Your task to perform on an android device: Set the phone to "Do not disturb". Image 0: 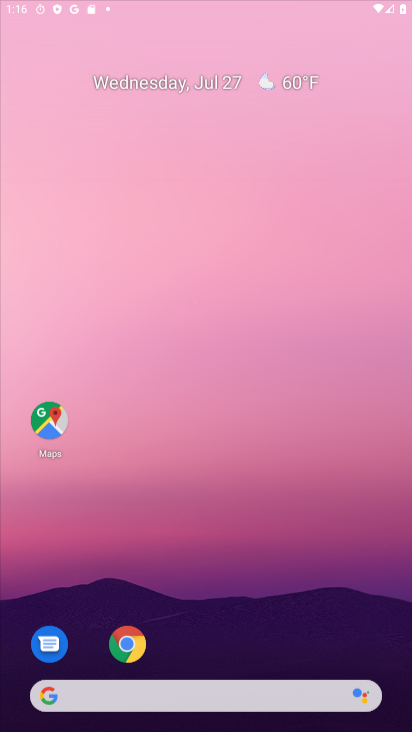
Step 0: click (238, 194)
Your task to perform on an android device: Set the phone to "Do not disturb". Image 1: 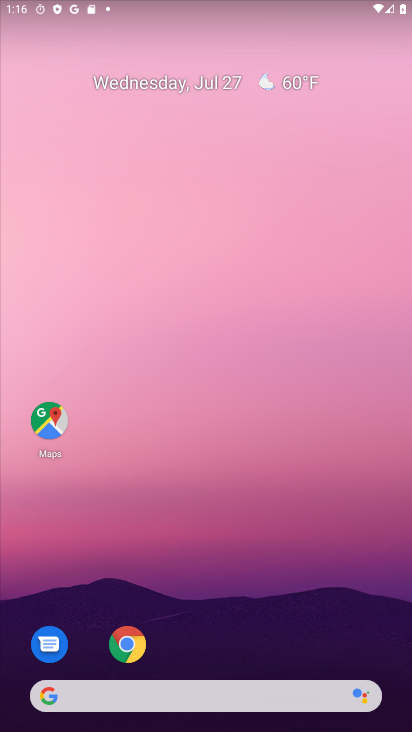
Step 1: drag from (189, 630) to (225, 97)
Your task to perform on an android device: Set the phone to "Do not disturb". Image 2: 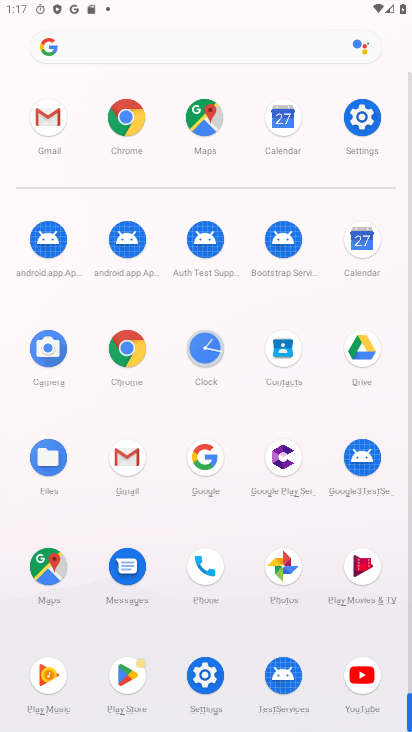
Step 2: click (207, 674)
Your task to perform on an android device: Set the phone to "Do not disturb". Image 3: 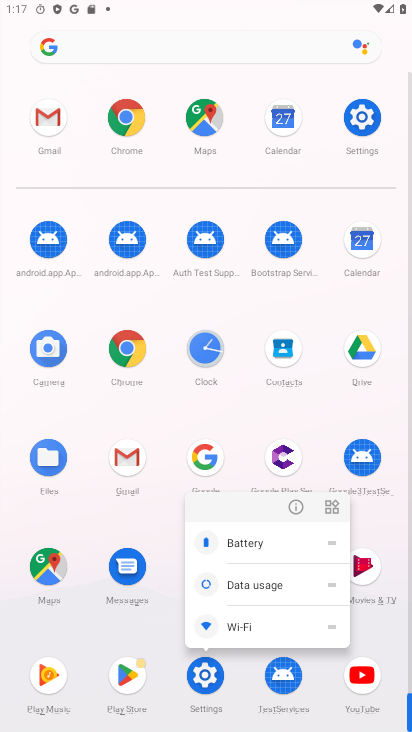
Step 3: click (293, 505)
Your task to perform on an android device: Set the phone to "Do not disturb". Image 4: 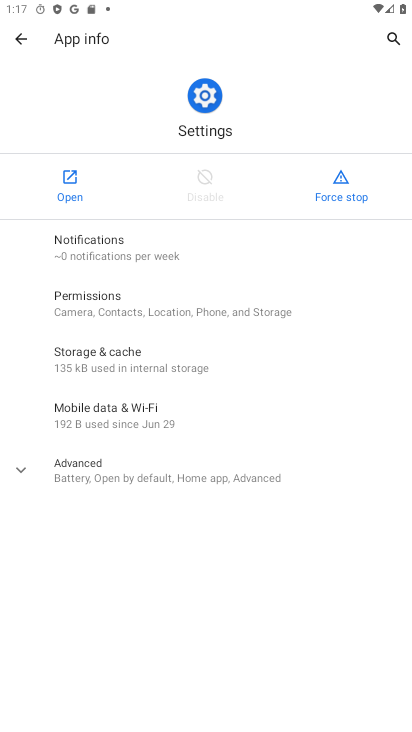
Step 4: click (98, 176)
Your task to perform on an android device: Set the phone to "Do not disturb". Image 5: 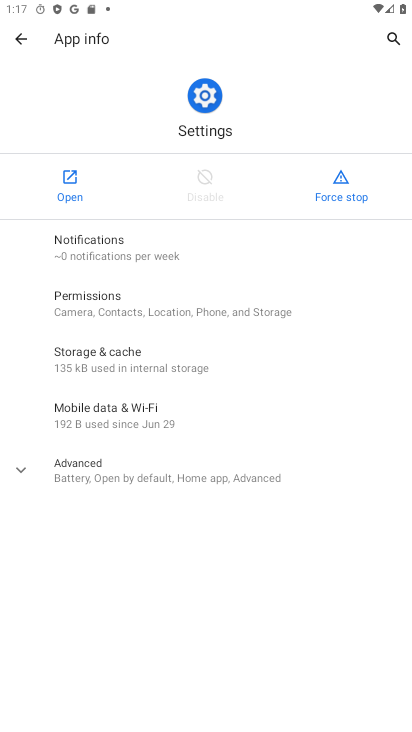
Step 5: click (84, 176)
Your task to perform on an android device: Set the phone to "Do not disturb". Image 6: 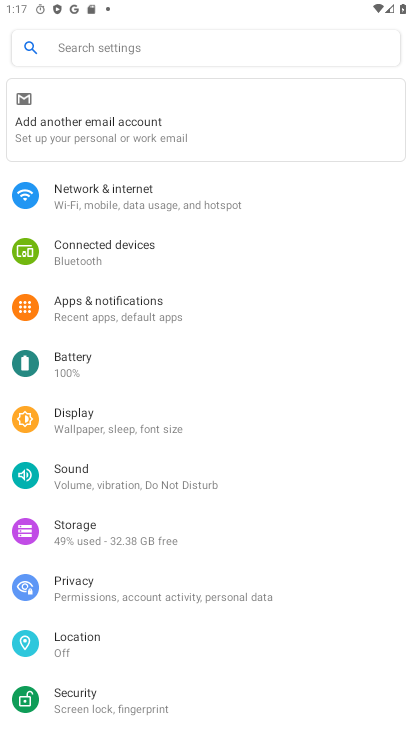
Step 6: drag from (212, 518) to (225, 200)
Your task to perform on an android device: Set the phone to "Do not disturb". Image 7: 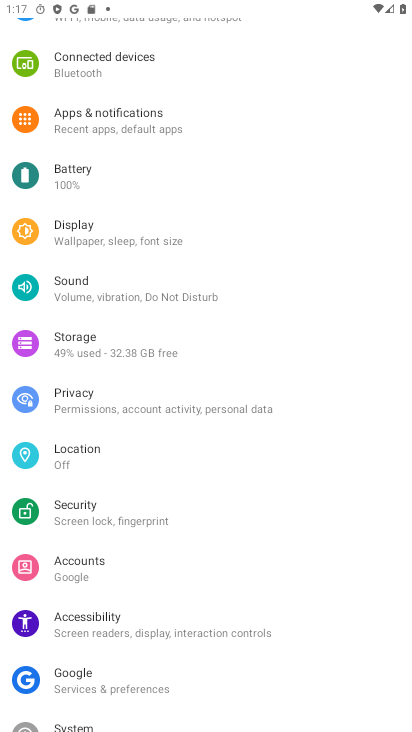
Step 7: drag from (225, 196) to (271, 730)
Your task to perform on an android device: Set the phone to "Do not disturb". Image 8: 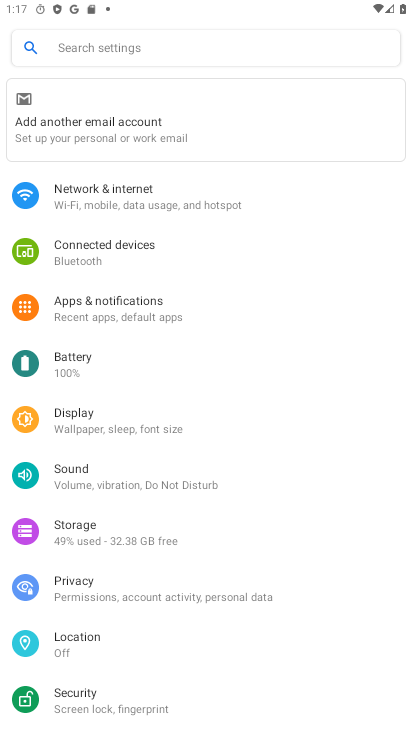
Step 8: click (165, 315)
Your task to perform on an android device: Set the phone to "Do not disturb". Image 9: 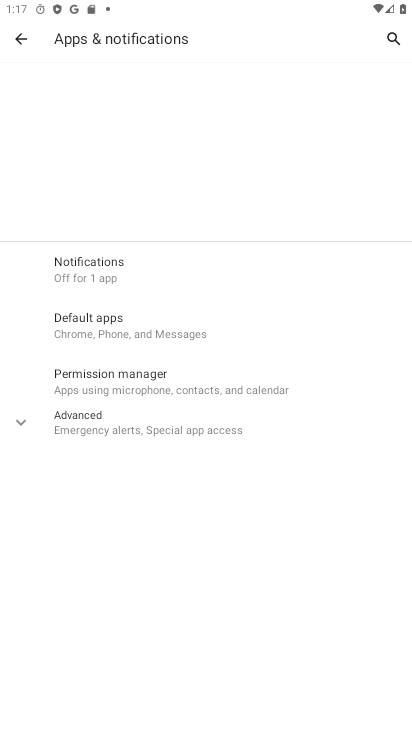
Step 9: drag from (213, 572) to (219, 184)
Your task to perform on an android device: Set the phone to "Do not disturb". Image 10: 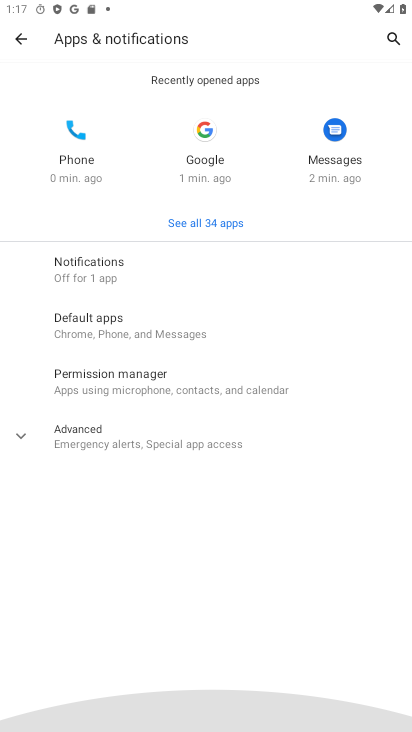
Step 10: drag from (237, 139) to (189, 723)
Your task to perform on an android device: Set the phone to "Do not disturb". Image 11: 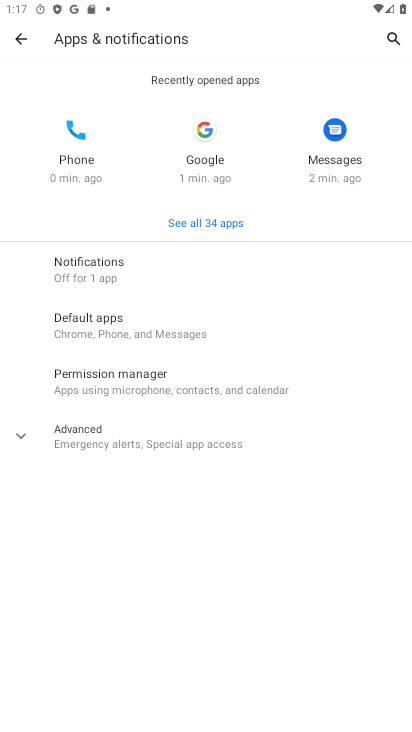
Step 11: click (174, 263)
Your task to perform on an android device: Set the phone to "Do not disturb". Image 12: 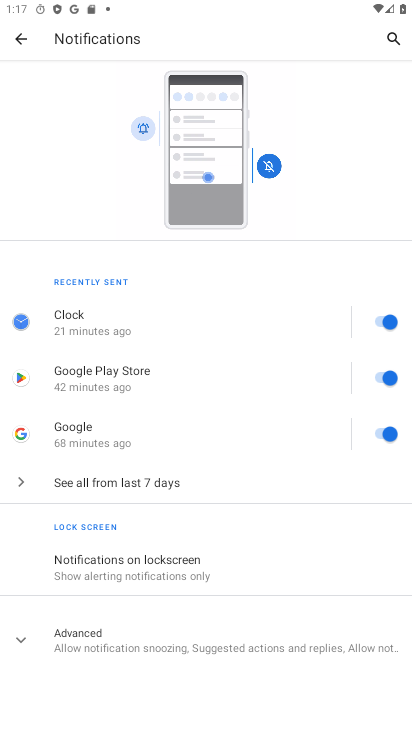
Step 12: drag from (240, 499) to (252, 213)
Your task to perform on an android device: Set the phone to "Do not disturb". Image 13: 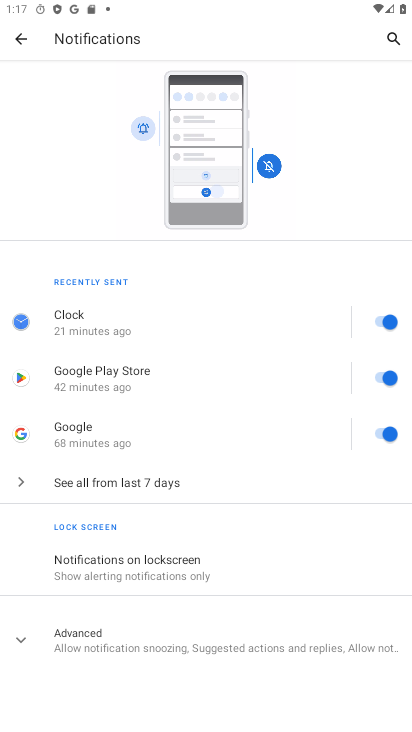
Step 13: drag from (183, 591) to (232, 312)
Your task to perform on an android device: Set the phone to "Do not disturb". Image 14: 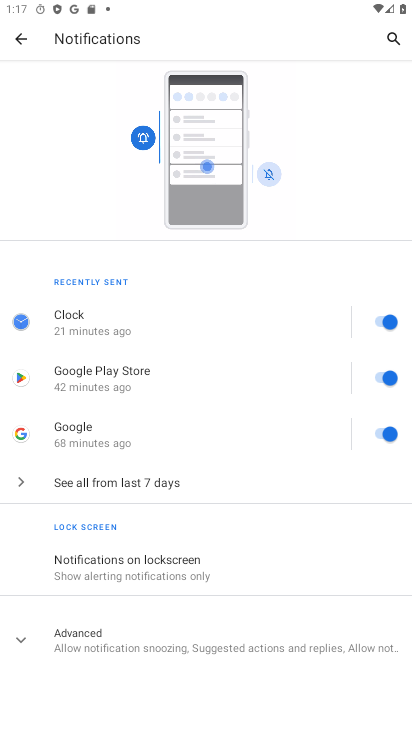
Step 14: drag from (212, 95) to (183, 511)
Your task to perform on an android device: Set the phone to "Do not disturb". Image 15: 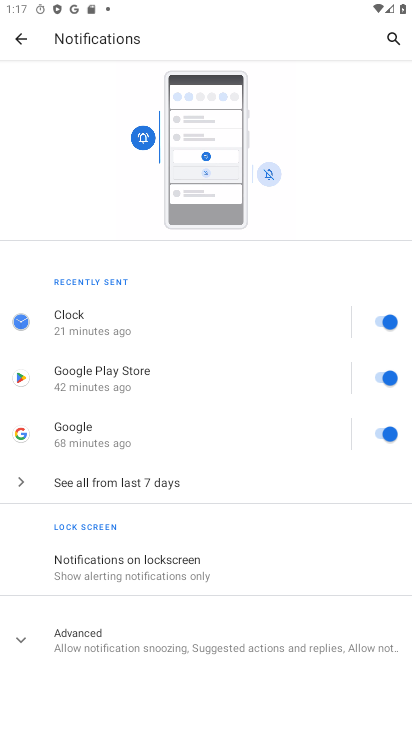
Step 15: drag from (246, 654) to (255, 211)
Your task to perform on an android device: Set the phone to "Do not disturb". Image 16: 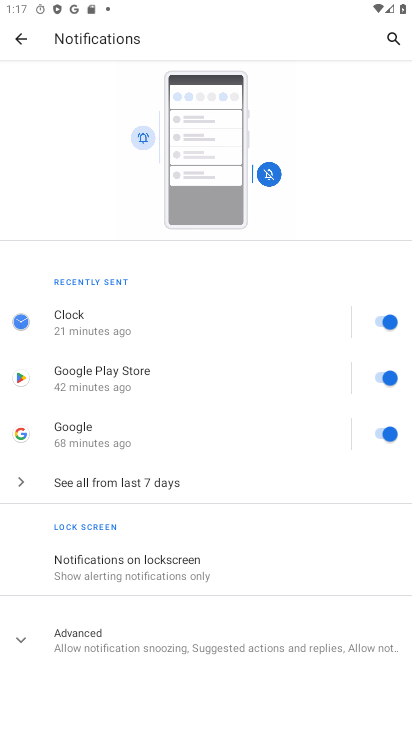
Step 16: drag from (198, 66) to (223, 409)
Your task to perform on an android device: Set the phone to "Do not disturb". Image 17: 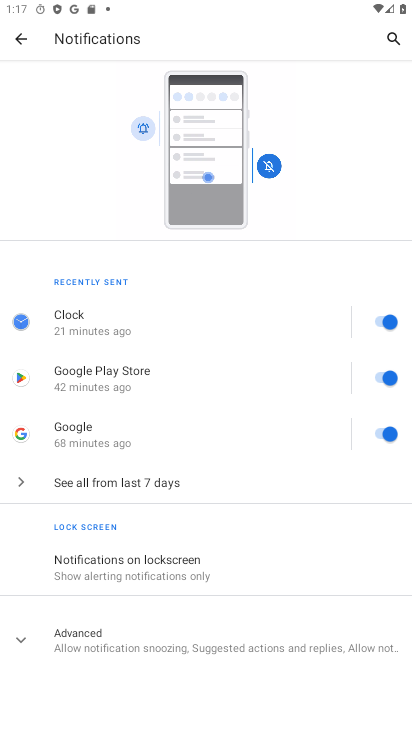
Step 17: click (78, 665)
Your task to perform on an android device: Set the phone to "Do not disturb". Image 18: 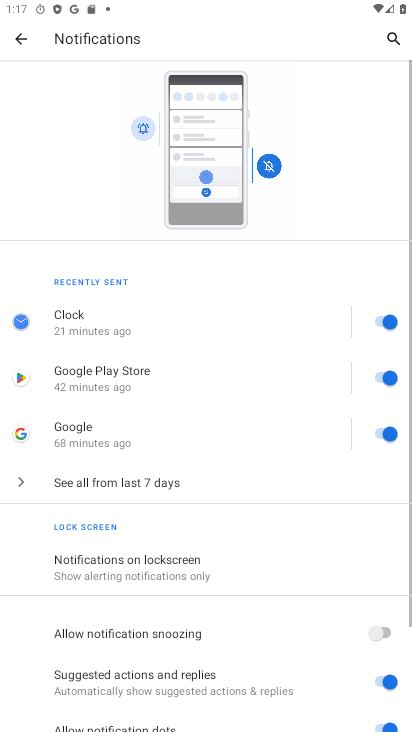
Step 18: drag from (192, 629) to (318, 69)
Your task to perform on an android device: Set the phone to "Do not disturb". Image 19: 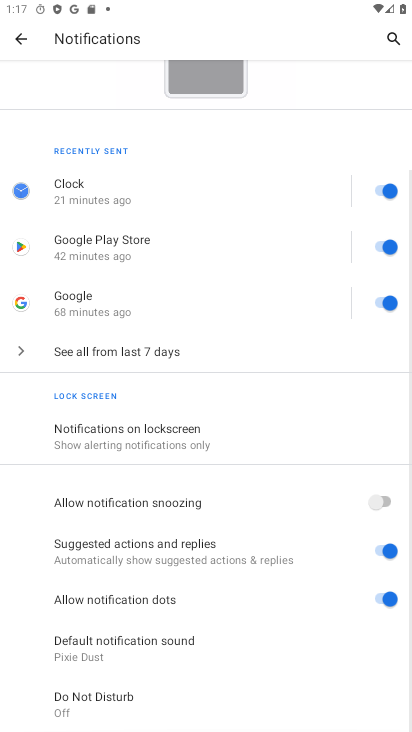
Step 19: click (127, 710)
Your task to perform on an android device: Set the phone to "Do not disturb". Image 20: 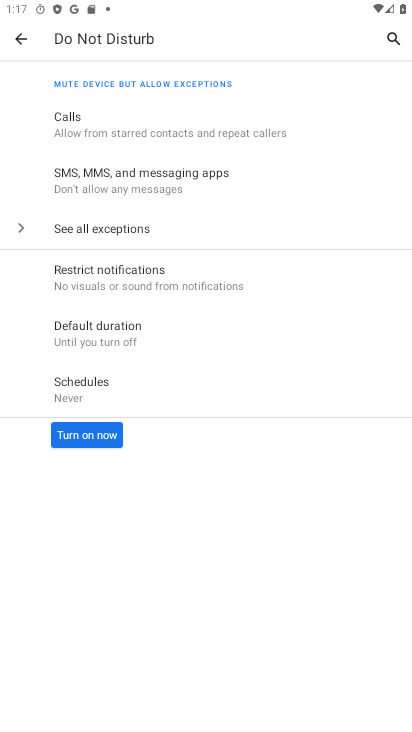
Step 20: drag from (159, 685) to (286, 186)
Your task to perform on an android device: Set the phone to "Do not disturb". Image 21: 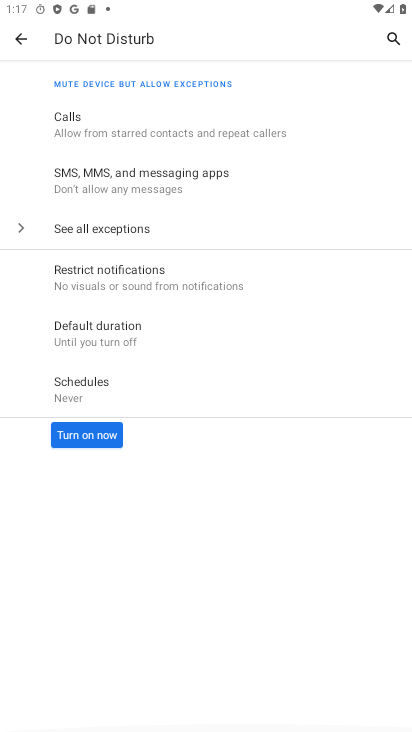
Step 21: click (70, 437)
Your task to perform on an android device: Set the phone to "Do not disturb". Image 22: 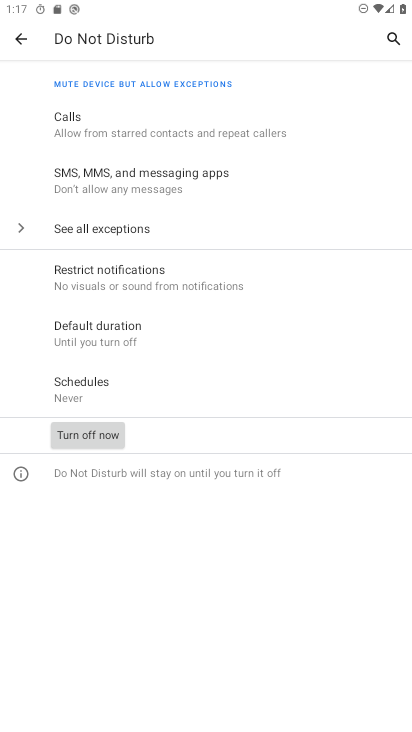
Step 22: task complete